Your task to perform on an android device: open chrome and create a bookmark for the current page Image 0: 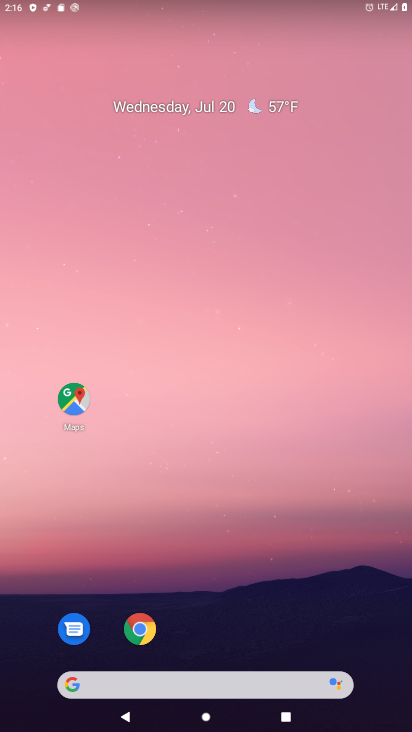
Step 0: click (140, 630)
Your task to perform on an android device: open chrome and create a bookmark for the current page Image 1: 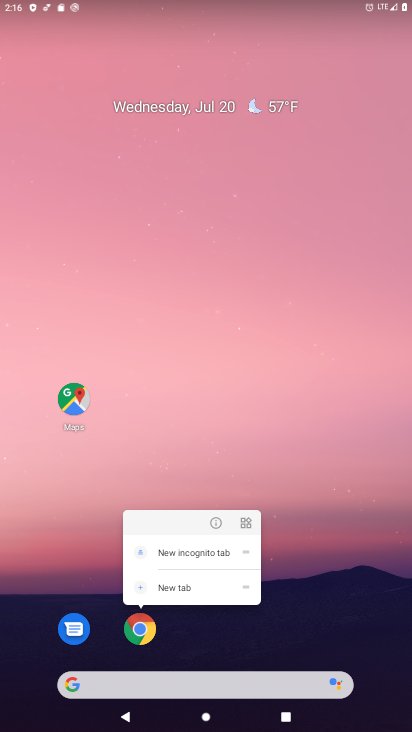
Step 1: click (140, 630)
Your task to perform on an android device: open chrome and create a bookmark for the current page Image 2: 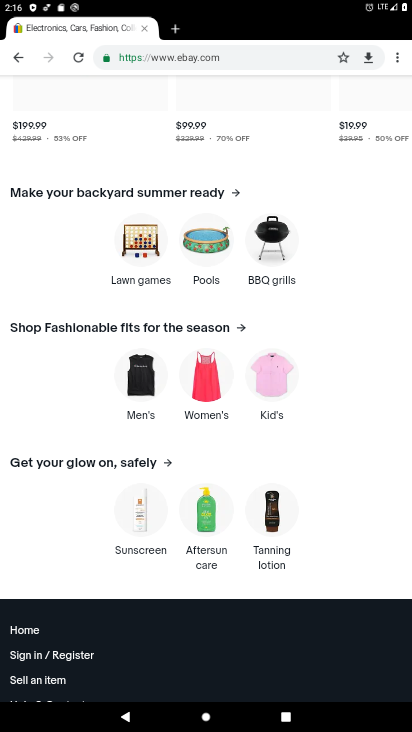
Step 2: click (399, 63)
Your task to perform on an android device: open chrome and create a bookmark for the current page Image 3: 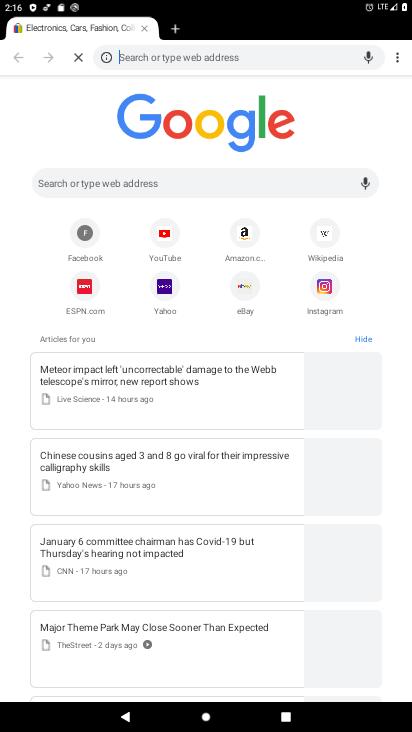
Step 3: click (399, 63)
Your task to perform on an android device: open chrome and create a bookmark for the current page Image 4: 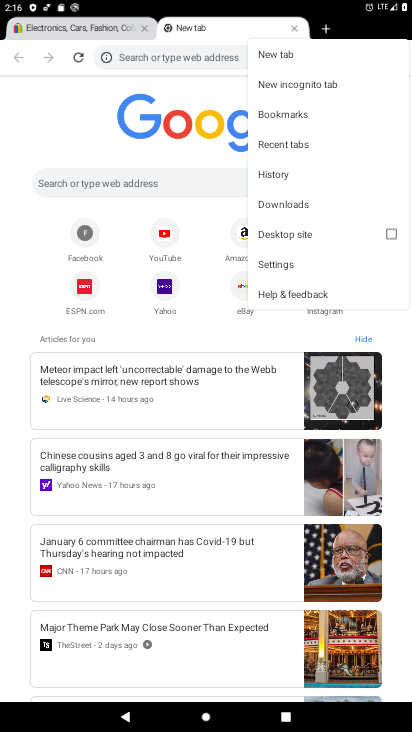
Step 4: click (190, 82)
Your task to perform on an android device: open chrome and create a bookmark for the current page Image 5: 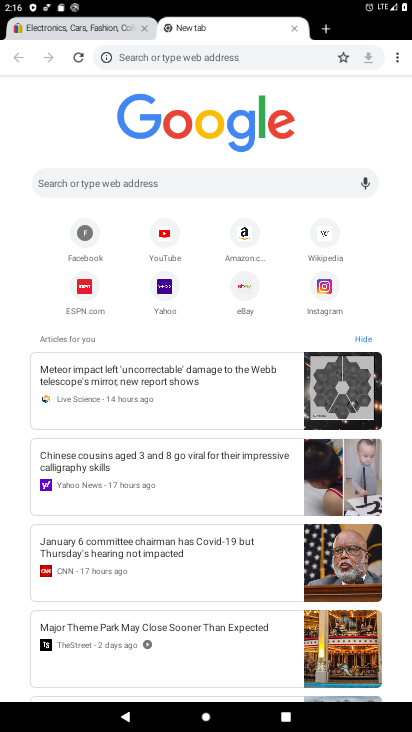
Step 5: click (341, 61)
Your task to perform on an android device: open chrome and create a bookmark for the current page Image 6: 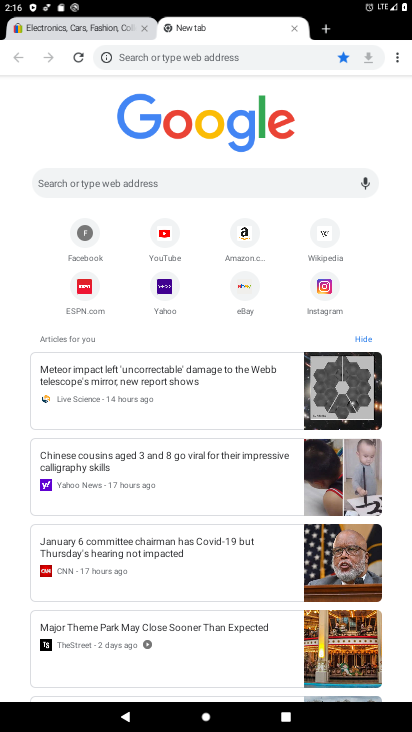
Step 6: task complete